Your task to perform on an android device: Go to ESPN.com Image 0: 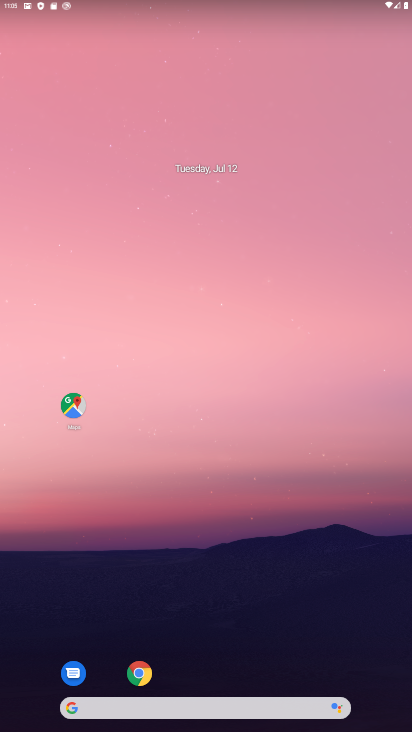
Step 0: click (140, 684)
Your task to perform on an android device: Go to ESPN.com Image 1: 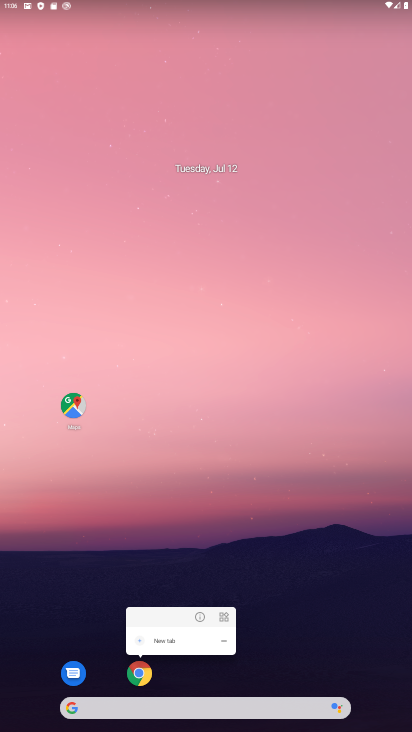
Step 1: click (144, 682)
Your task to perform on an android device: Go to ESPN.com Image 2: 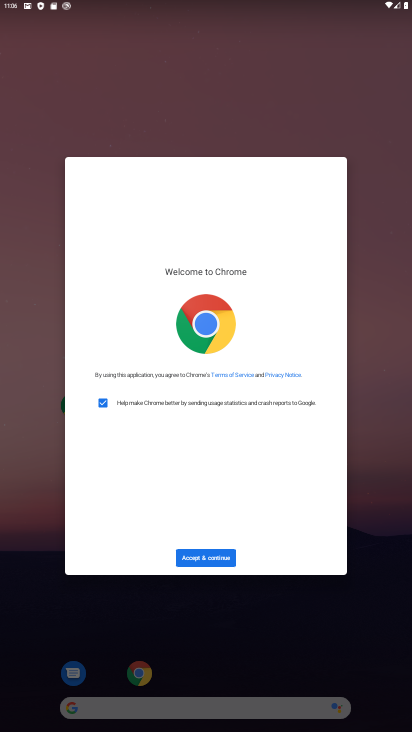
Step 2: click (203, 555)
Your task to perform on an android device: Go to ESPN.com Image 3: 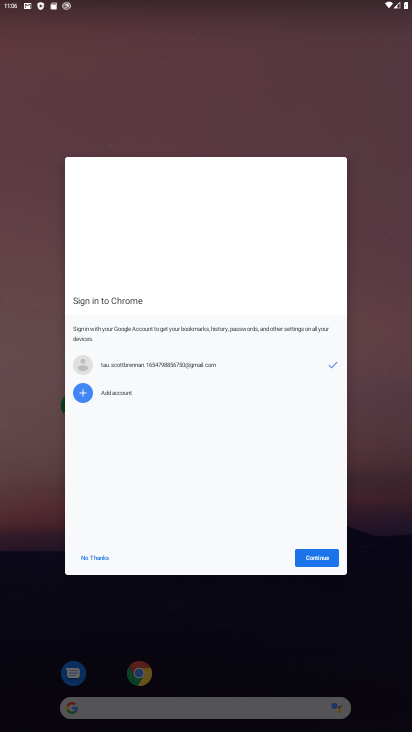
Step 3: click (332, 554)
Your task to perform on an android device: Go to ESPN.com Image 4: 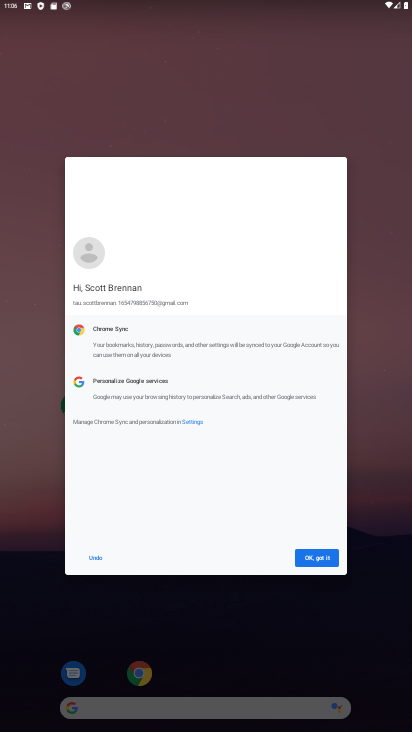
Step 4: click (332, 555)
Your task to perform on an android device: Go to ESPN.com Image 5: 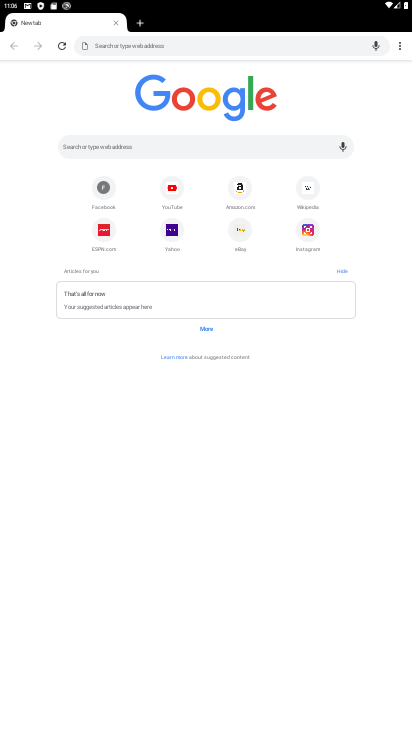
Step 5: click (110, 234)
Your task to perform on an android device: Go to ESPN.com Image 6: 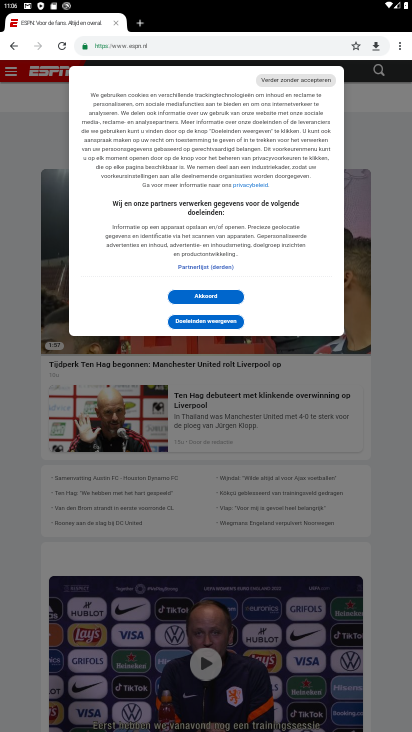
Step 6: task complete